Your task to perform on an android device: Search for razer blade on costco.com, select the first entry, add it to the cart, then select checkout. Image 0: 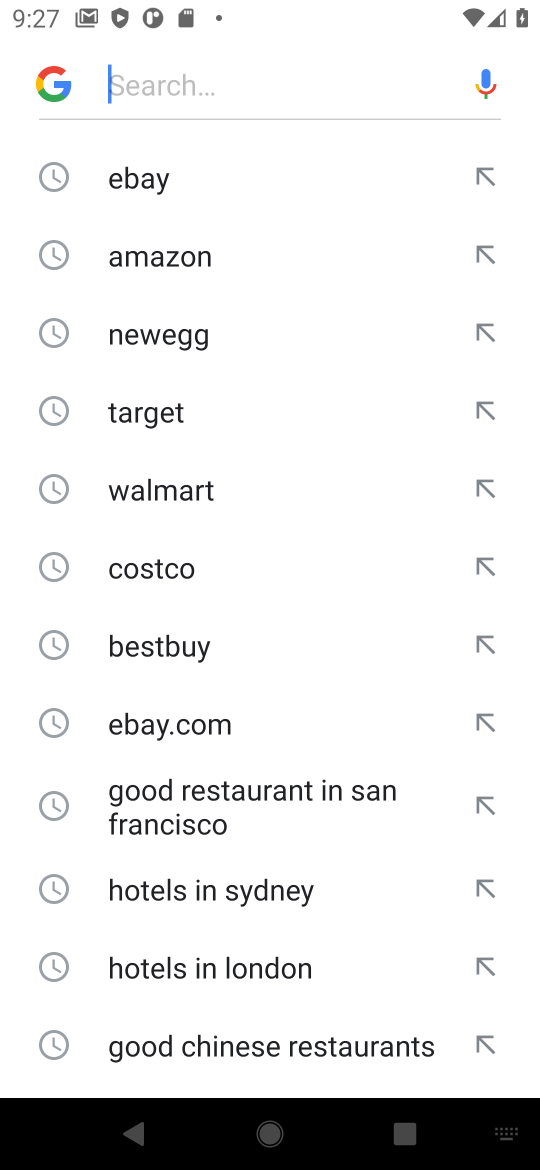
Step 0: press home button
Your task to perform on an android device: Search for razer blade on costco.com, select the first entry, add it to the cart, then select checkout. Image 1: 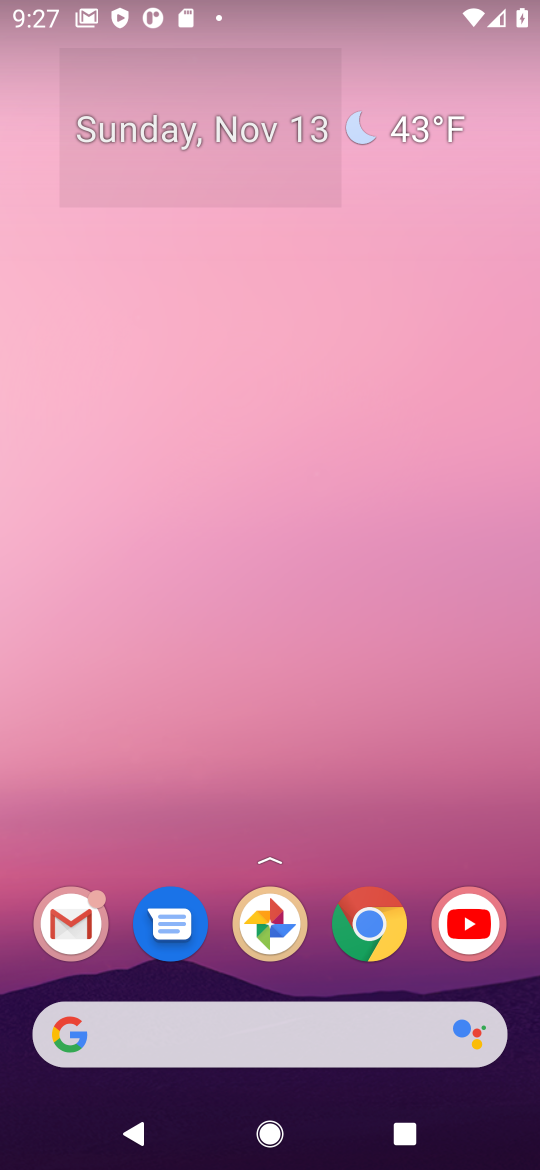
Step 1: click (372, 925)
Your task to perform on an android device: Search for razer blade on costco.com, select the first entry, add it to the cart, then select checkout. Image 2: 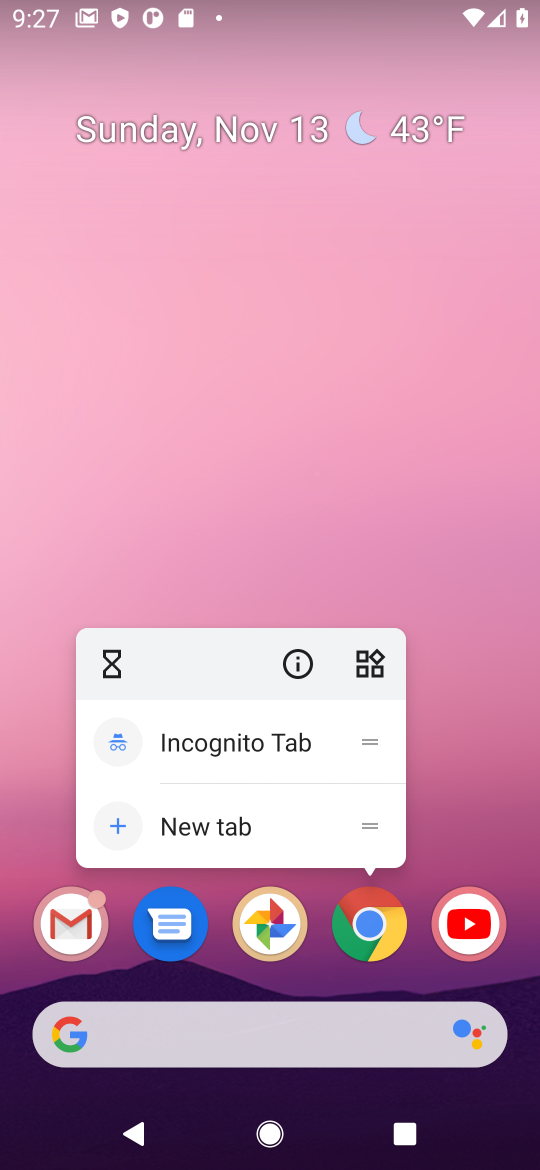
Step 2: click (372, 925)
Your task to perform on an android device: Search for razer blade on costco.com, select the first entry, add it to the cart, then select checkout. Image 3: 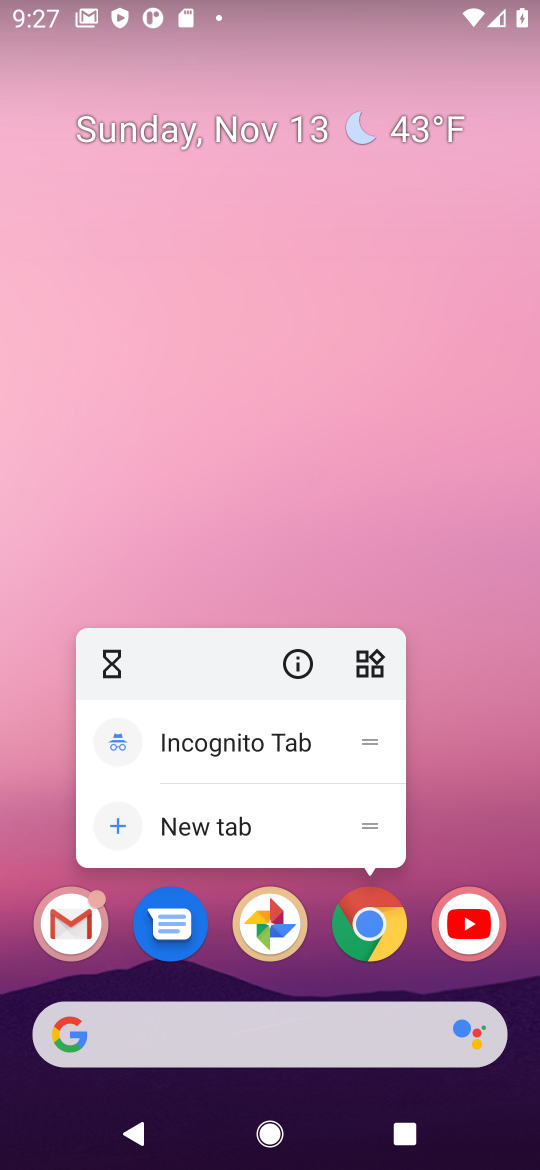
Step 3: click (367, 929)
Your task to perform on an android device: Search for razer blade on costco.com, select the first entry, add it to the cart, then select checkout. Image 4: 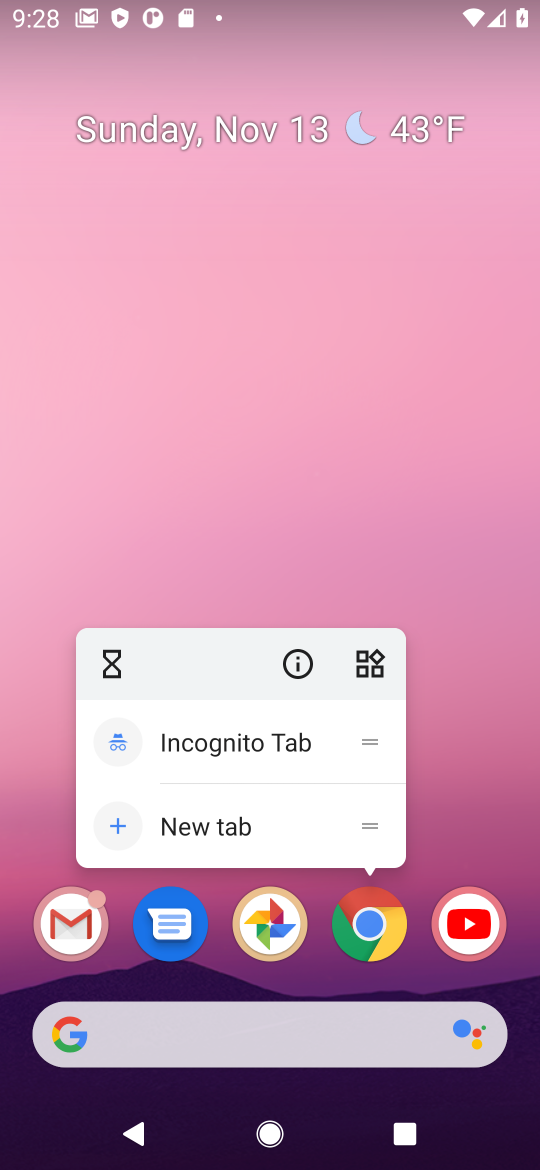
Step 4: click (384, 908)
Your task to perform on an android device: Search for razer blade on costco.com, select the first entry, add it to the cart, then select checkout. Image 5: 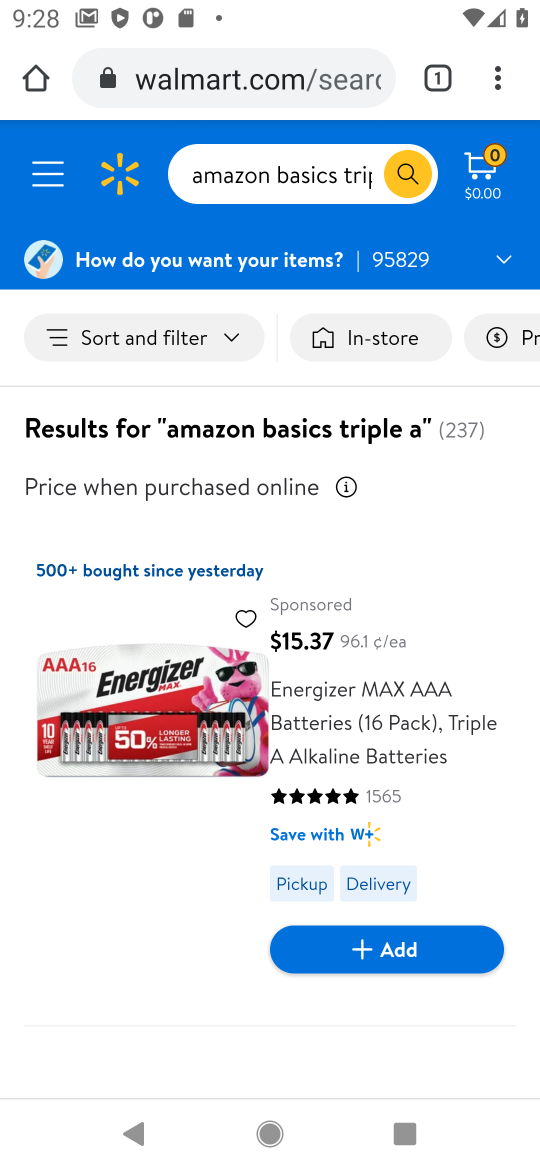
Step 5: click (288, 83)
Your task to perform on an android device: Search for razer blade on costco.com, select the first entry, add it to the cart, then select checkout. Image 6: 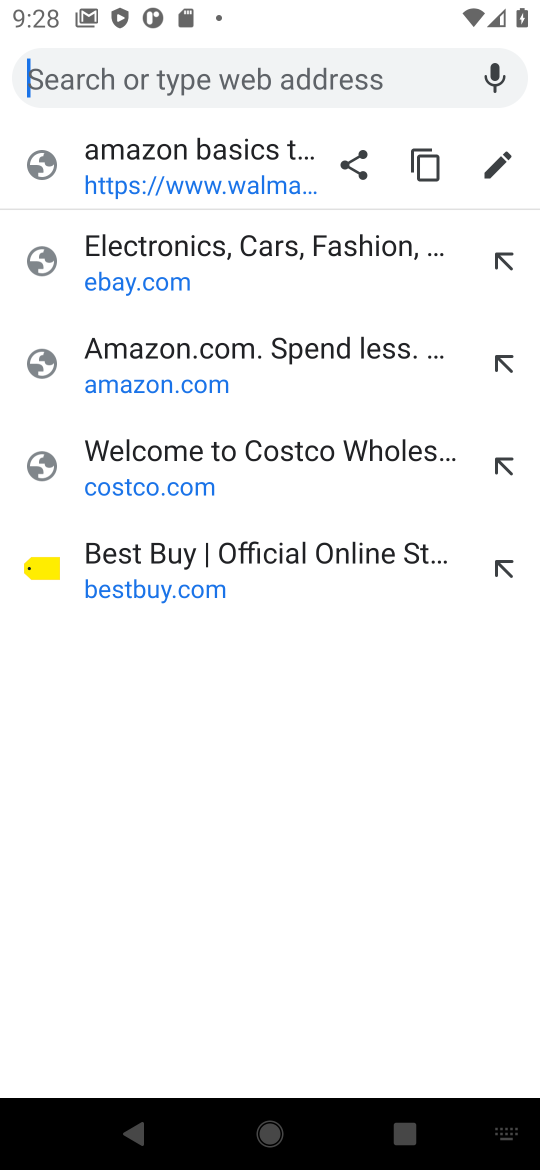
Step 6: type " costco.com"
Your task to perform on an android device: Search for razer blade on costco.com, select the first entry, add it to the cart, then select checkout. Image 7: 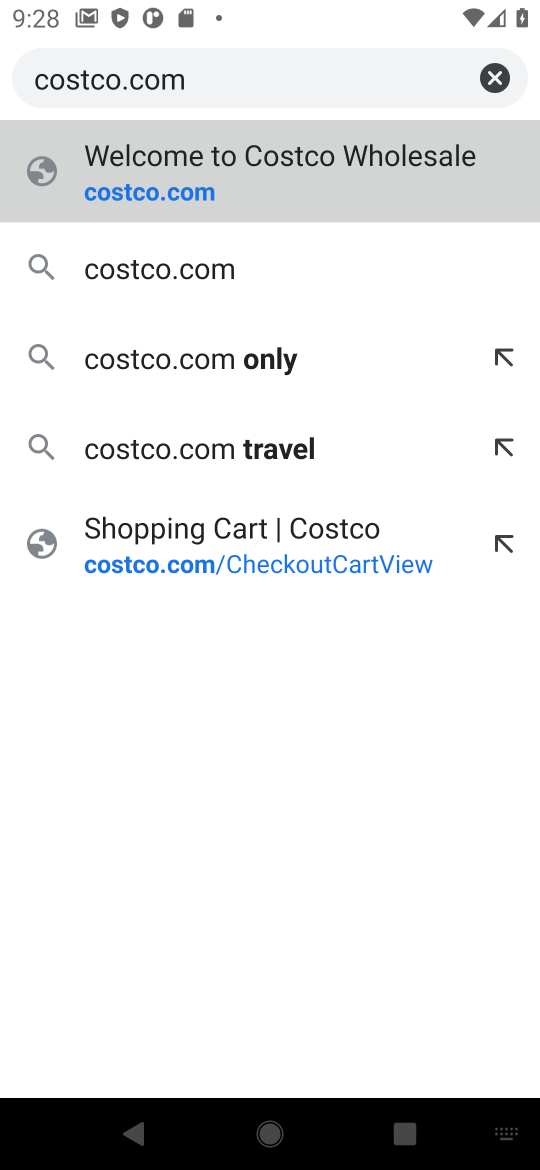
Step 7: press enter
Your task to perform on an android device: Search for razer blade on costco.com, select the first entry, add it to the cart, then select checkout. Image 8: 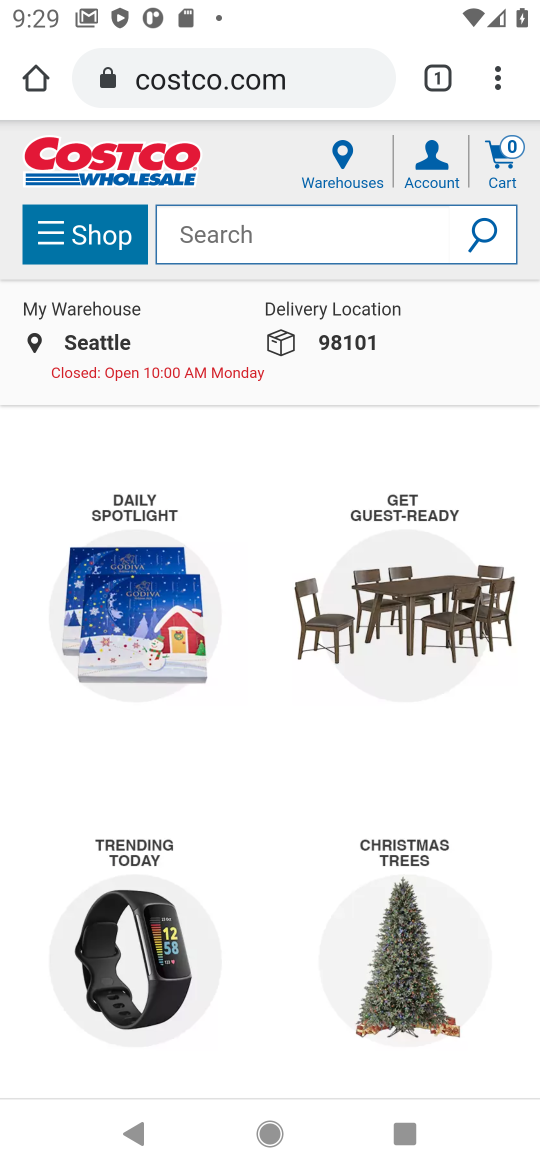
Step 8: click (271, 229)
Your task to perform on an android device: Search for razer blade on costco.com, select the first entry, add it to the cart, then select checkout. Image 9: 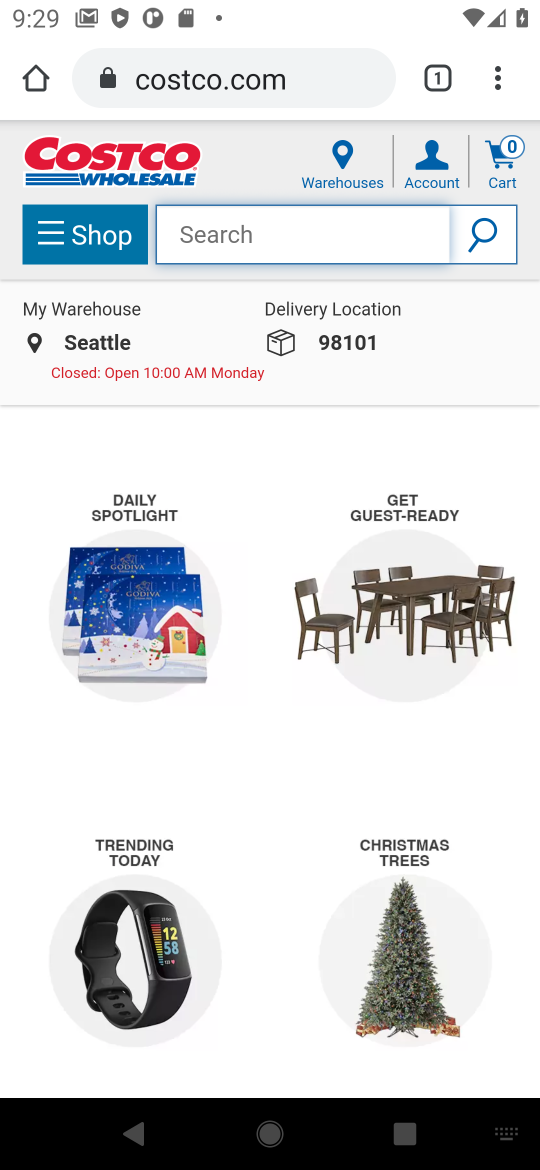
Step 9: type "razer blade"
Your task to perform on an android device: Search for razer blade on costco.com, select the first entry, add it to the cart, then select checkout. Image 10: 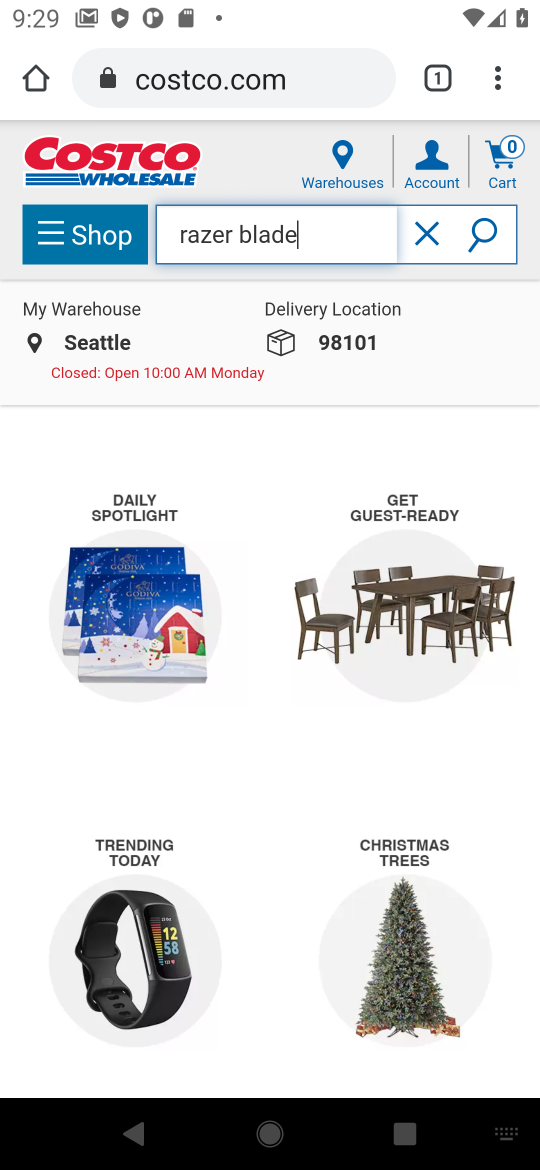
Step 10: press enter
Your task to perform on an android device: Search for razer blade on costco.com, select the first entry, add it to the cart, then select checkout. Image 11: 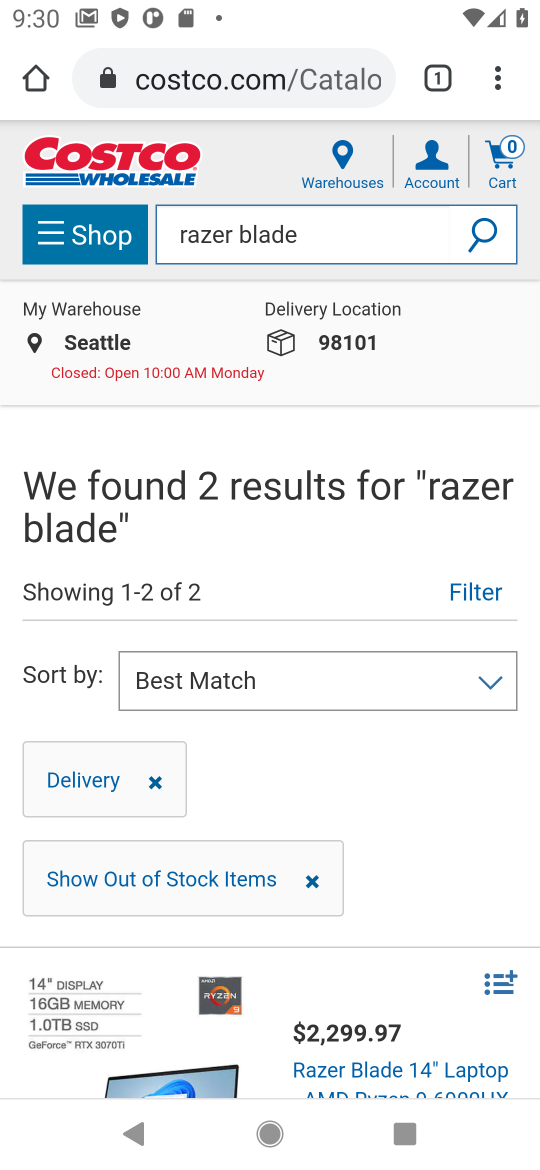
Step 11: drag from (363, 906) to (518, 577)
Your task to perform on an android device: Search for razer blade on costco.com, select the first entry, add it to the cart, then select checkout. Image 12: 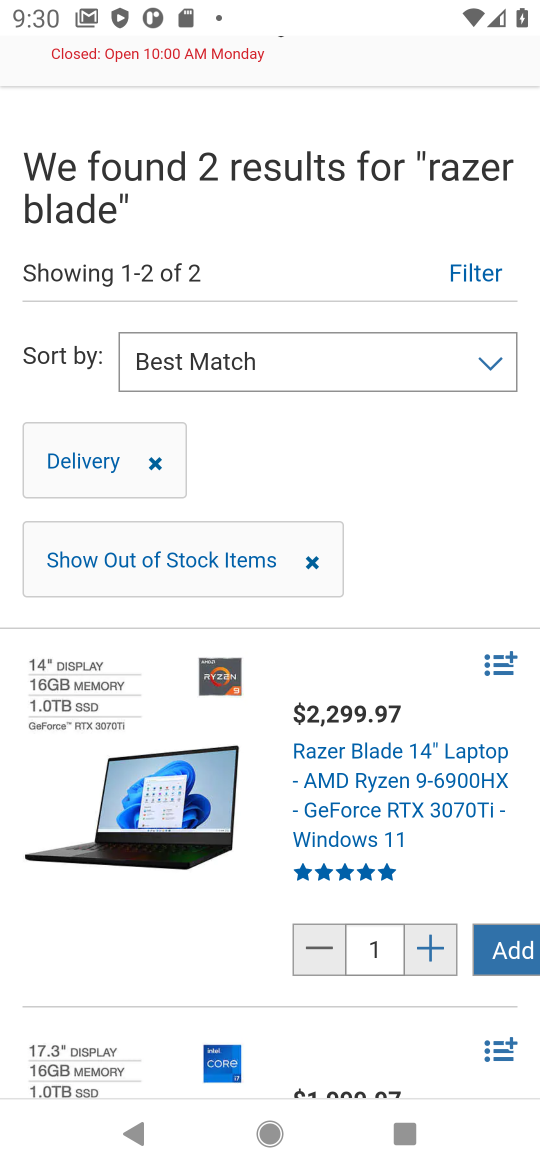
Step 12: click (518, 955)
Your task to perform on an android device: Search for razer blade on costco.com, select the first entry, add it to the cart, then select checkout. Image 13: 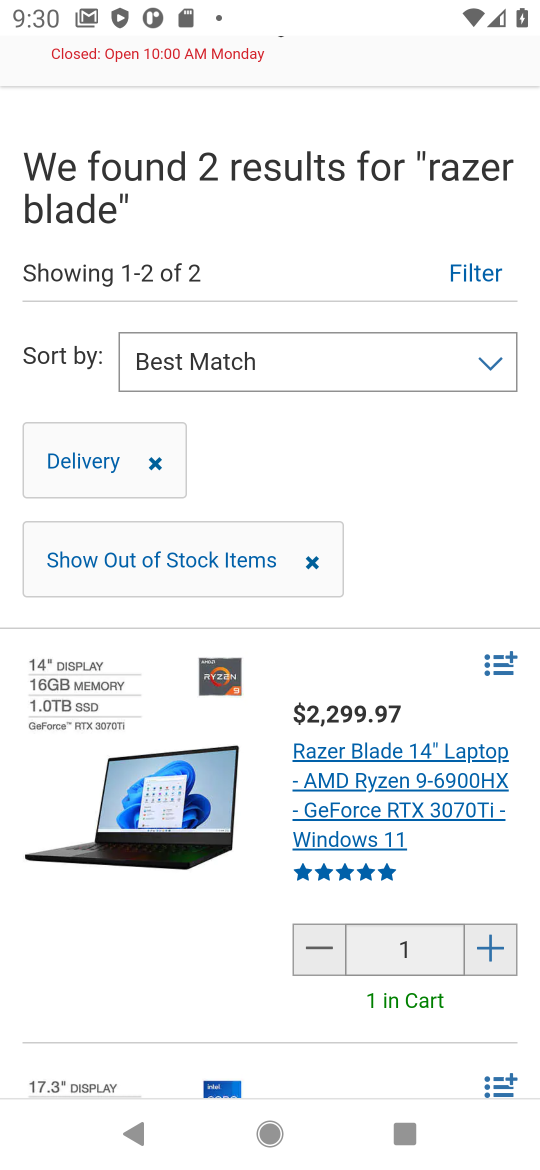
Step 13: drag from (409, 569) to (189, 964)
Your task to perform on an android device: Search for razer blade on costco.com, select the first entry, add it to the cart, then select checkout. Image 14: 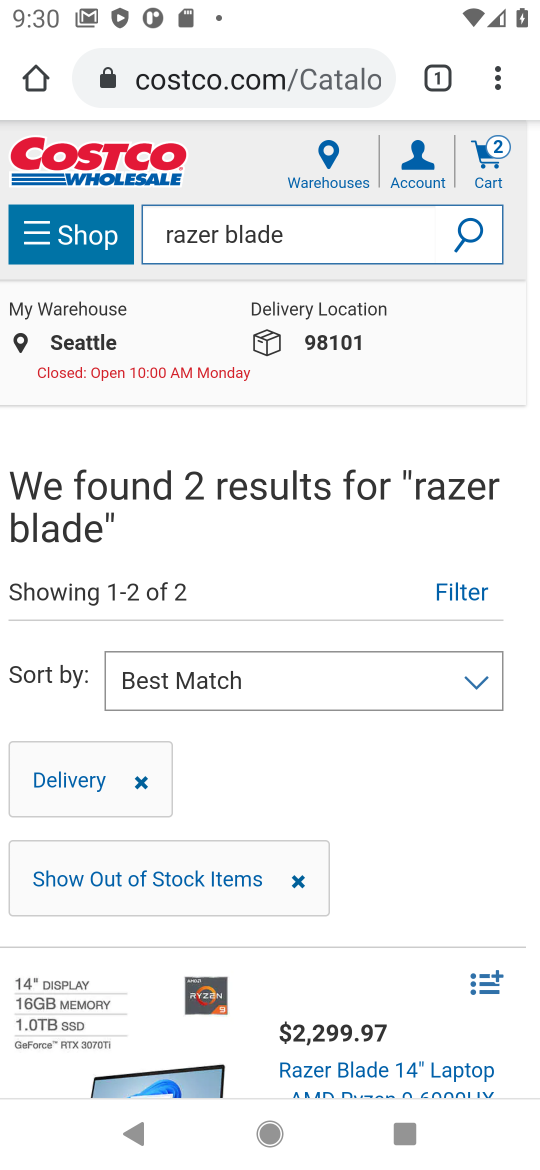
Step 14: drag from (333, 1007) to (463, 561)
Your task to perform on an android device: Search for razer blade on costco.com, select the first entry, add it to the cart, then select checkout. Image 15: 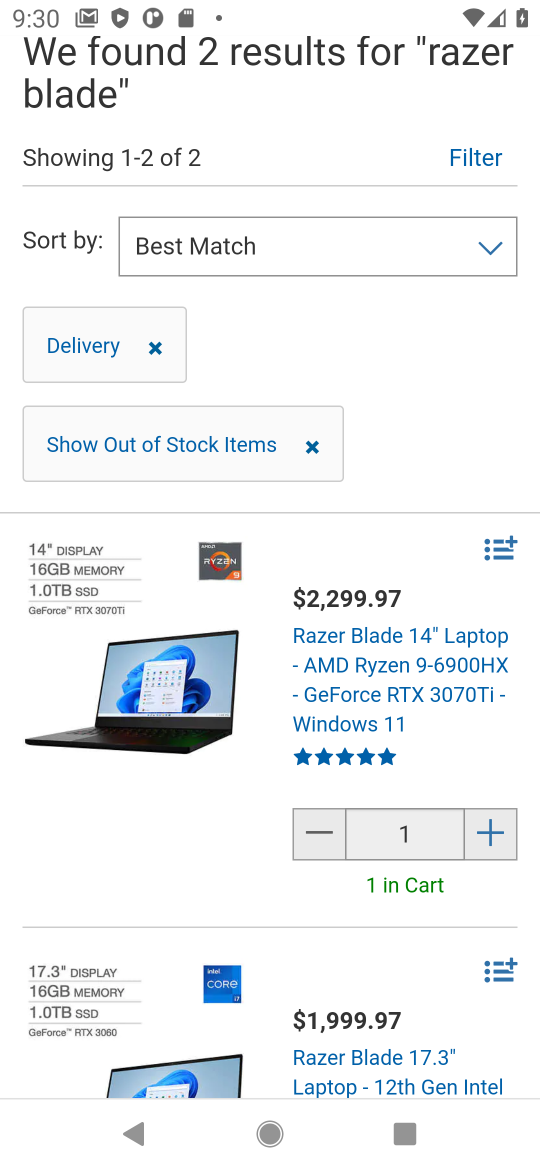
Step 15: drag from (401, 379) to (393, 892)
Your task to perform on an android device: Search for razer blade on costco.com, select the first entry, add it to the cart, then select checkout. Image 16: 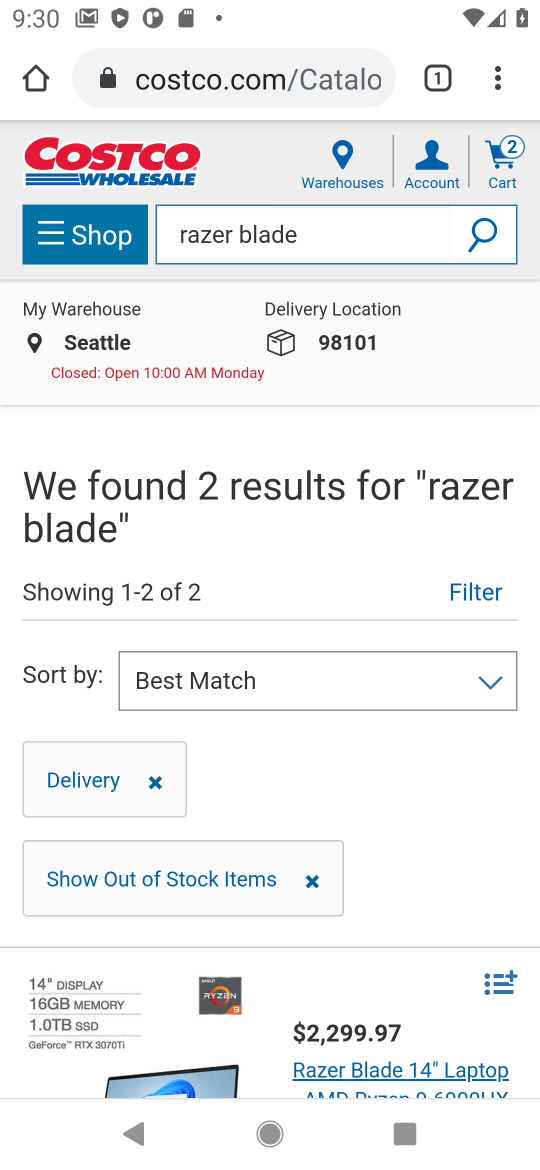
Step 16: click (497, 154)
Your task to perform on an android device: Search for razer blade on costco.com, select the first entry, add it to the cart, then select checkout. Image 17: 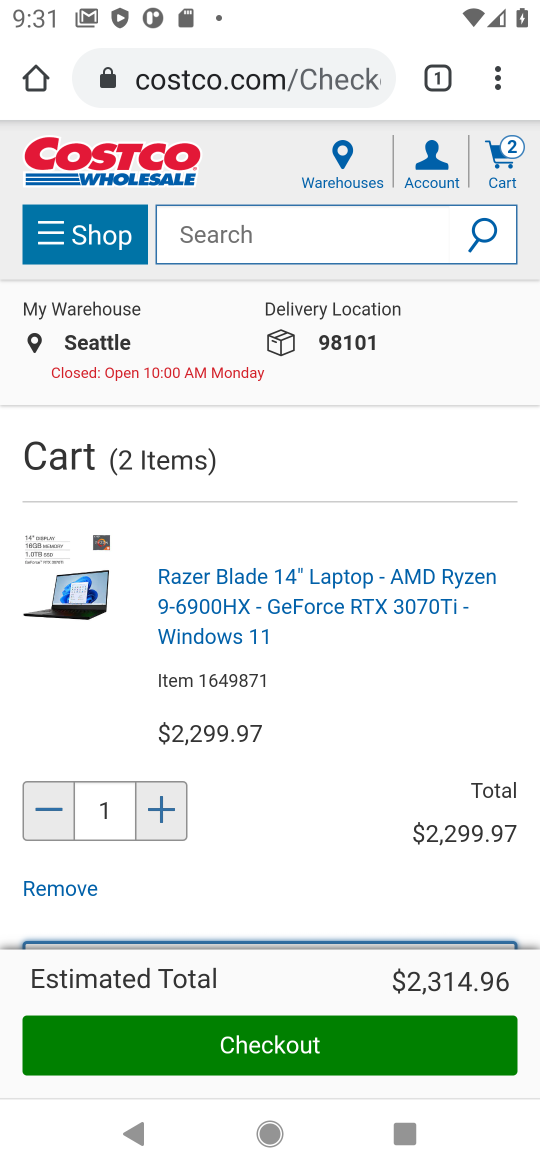
Step 17: drag from (279, 767) to (391, 438)
Your task to perform on an android device: Search for razer blade on costco.com, select the first entry, add it to the cart, then select checkout. Image 18: 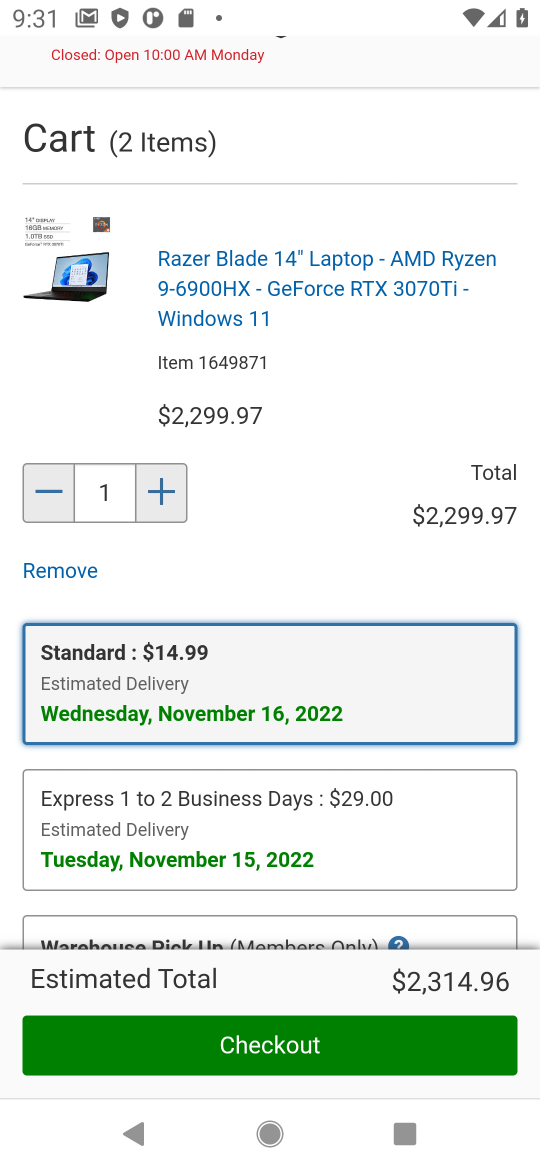
Step 18: drag from (253, 791) to (393, 556)
Your task to perform on an android device: Search for razer blade on costco.com, select the first entry, add it to the cart, then select checkout. Image 19: 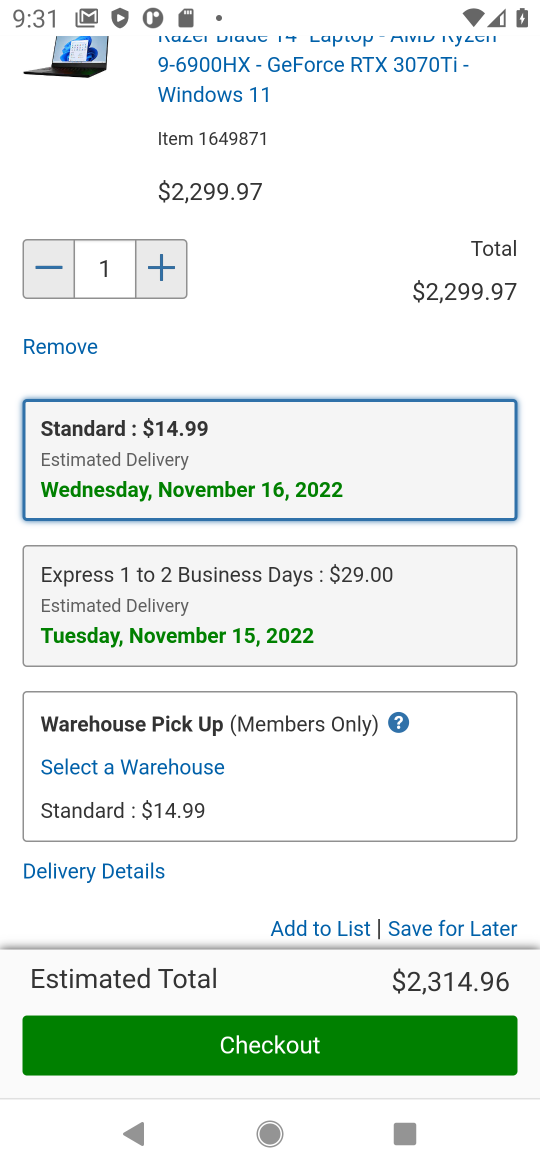
Step 19: click (286, 1047)
Your task to perform on an android device: Search for razer blade on costco.com, select the first entry, add it to the cart, then select checkout. Image 20: 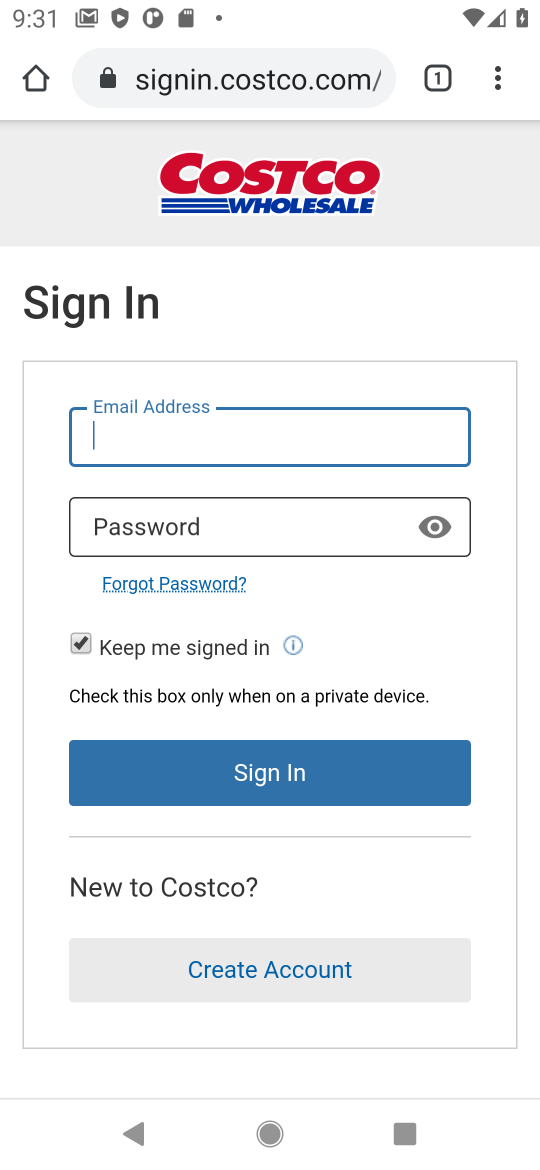
Step 20: task complete